Your task to perform on an android device: clear all cookies in the chrome app Image 0: 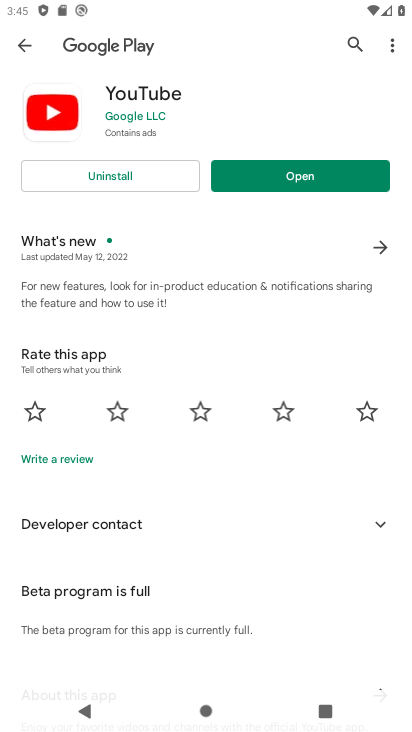
Step 0: press home button
Your task to perform on an android device: clear all cookies in the chrome app Image 1: 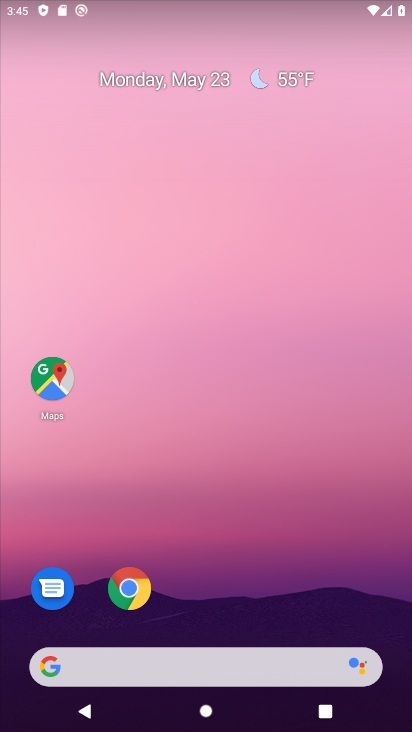
Step 1: click (133, 587)
Your task to perform on an android device: clear all cookies in the chrome app Image 2: 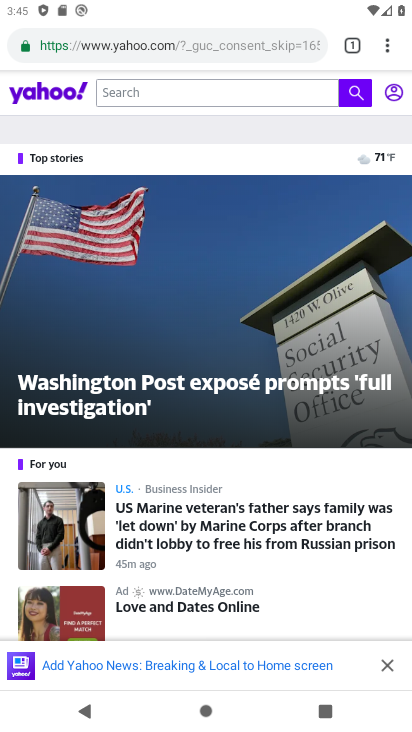
Step 2: click (382, 51)
Your task to perform on an android device: clear all cookies in the chrome app Image 3: 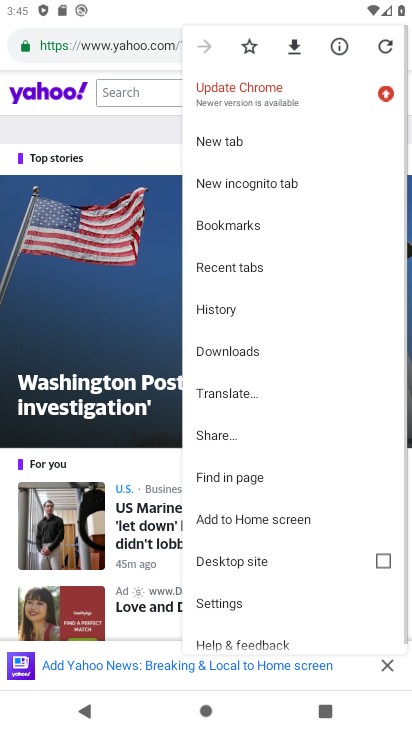
Step 3: click (231, 614)
Your task to perform on an android device: clear all cookies in the chrome app Image 4: 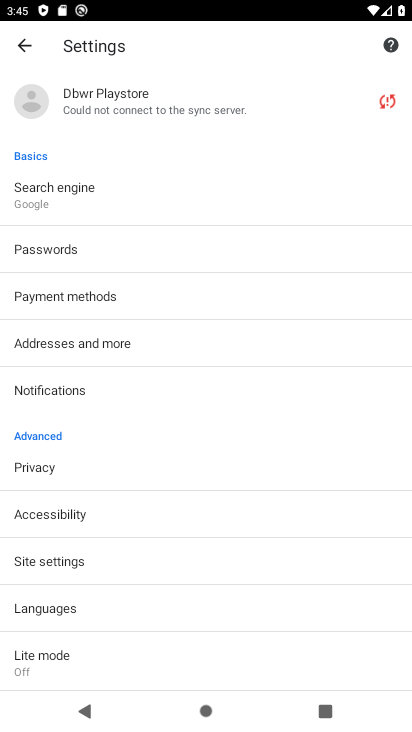
Step 4: click (47, 461)
Your task to perform on an android device: clear all cookies in the chrome app Image 5: 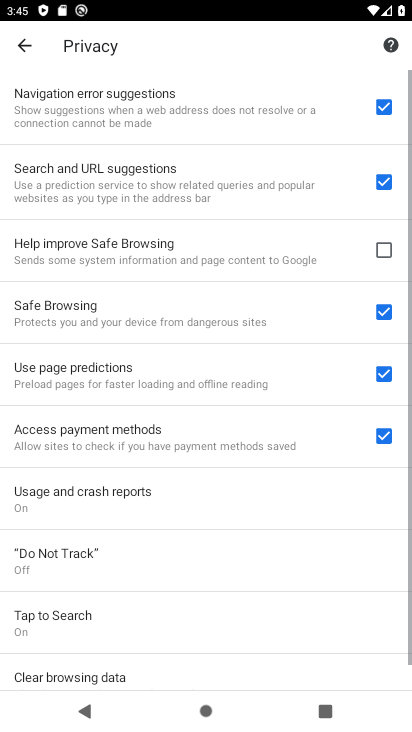
Step 5: drag from (255, 563) to (297, 74)
Your task to perform on an android device: clear all cookies in the chrome app Image 6: 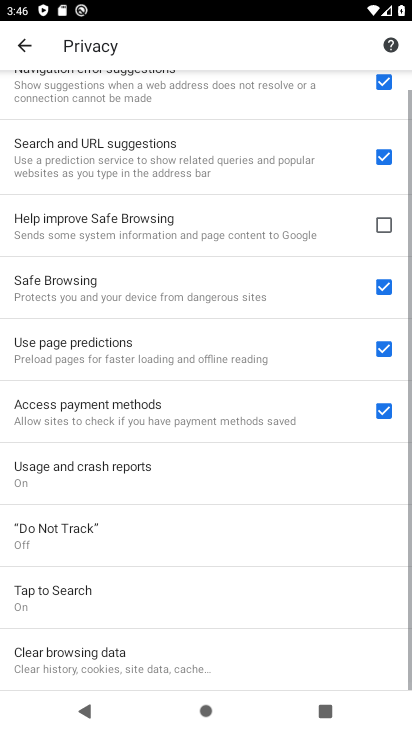
Step 6: click (94, 677)
Your task to perform on an android device: clear all cookies in the chrome app Image 7: 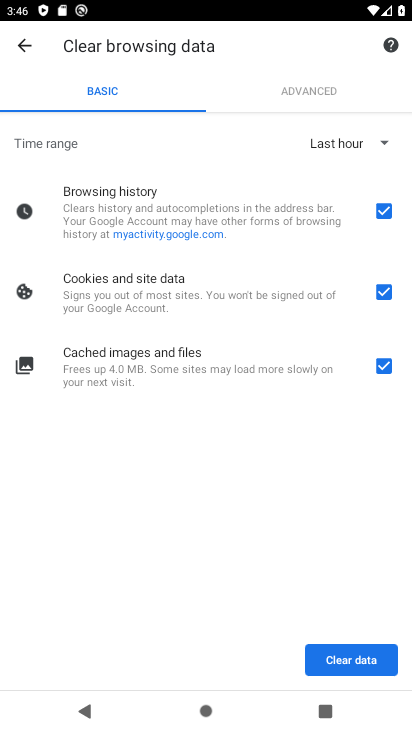
Step 7: click (379, 209)
Your task to perform on an android device: clear all cookies in the chrome app Image 8: 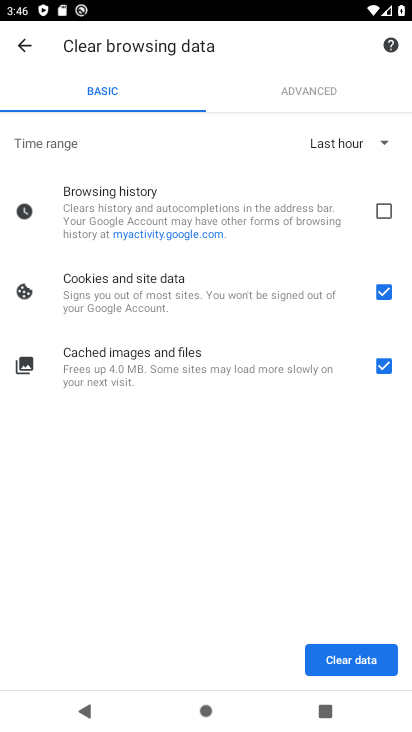
Step 8: click (380, 373)
Your task to perform on an android device: clear all cookies in the chrome app Image 9: 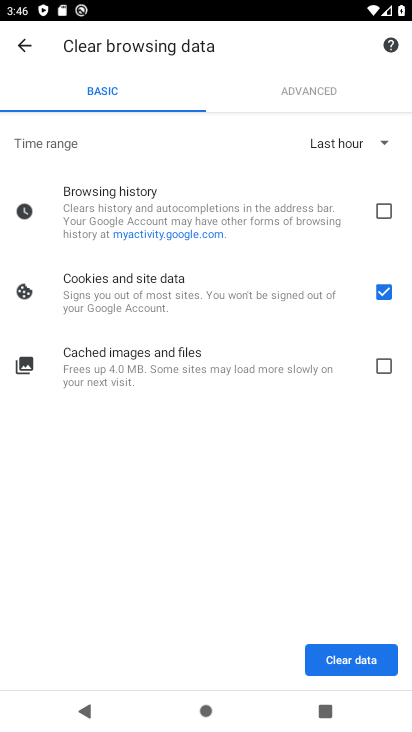
Step 9: click (347, 661)
Your task to perform on an android device: clear all cookies in the chrome app Image 10: 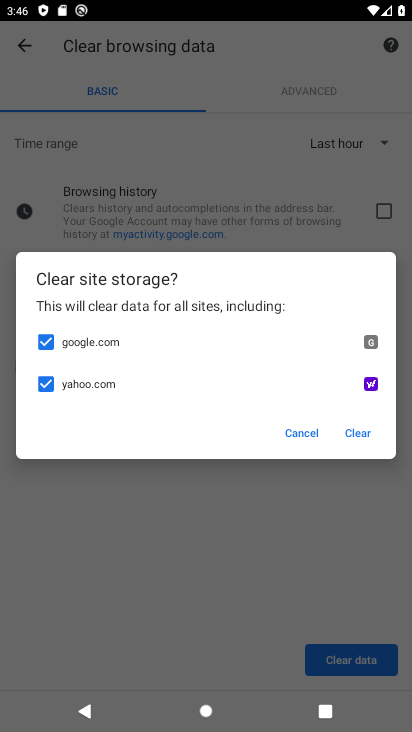
Step 10: click (335, 438)
Your task to perform on an android device: clear all cookies in the chrome app Image 11: 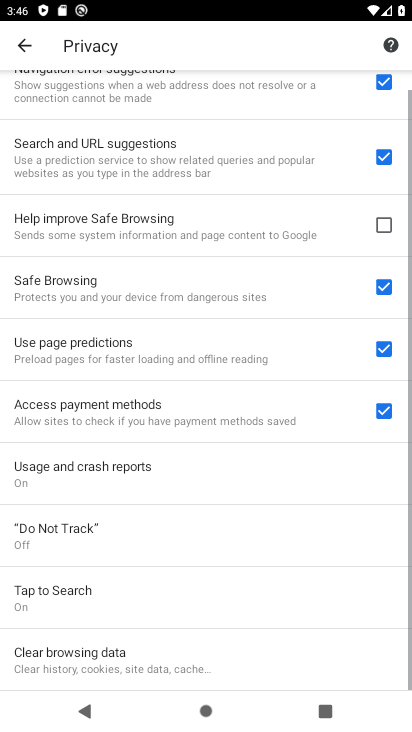
Step 11: task complete